Your task to perform on an android device: turn off wifi Image 0: 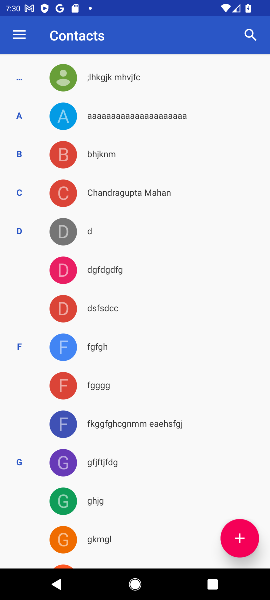
Step 0: press home button
Your task to perform on an android device: turn off wifi Image 1: 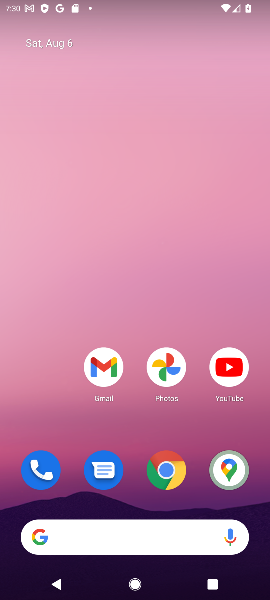
Step 1: drag from (176, 490) to (190, 95)
Your task to perform on an android device: turn off wifi Image 2: 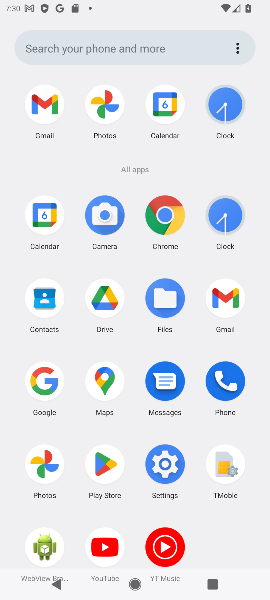
Step 2: click (166, 454)
Your task to perform on an android device: turn off wifi Image 3: 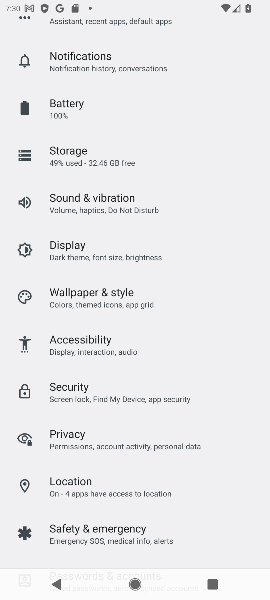
Step 3: drag from (128, 195) to (114, 547)
Your task to perform on an android device: turn off wifi Image 4: 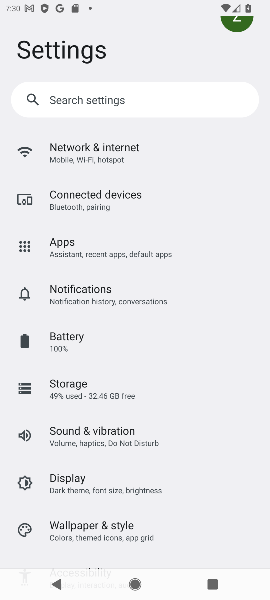
Step 4: click (105, 154)
Your task to perform on an android device: turn off wifi Image 5: 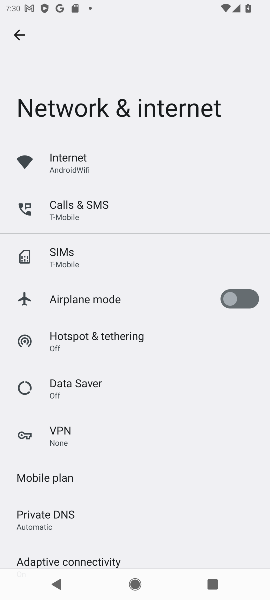
Step 5: click (73, 167)
Your task to perform on an android device: turn off wifi Image 6: 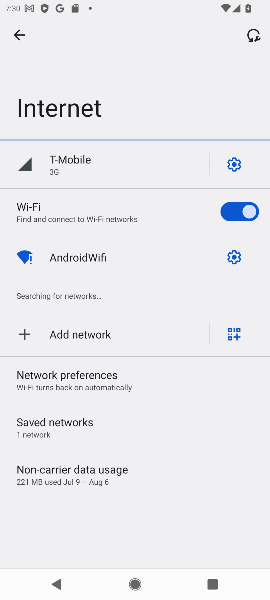
Step 6: click (225, 211)
Your task to perform on an android device: turn off wifi Image 7: 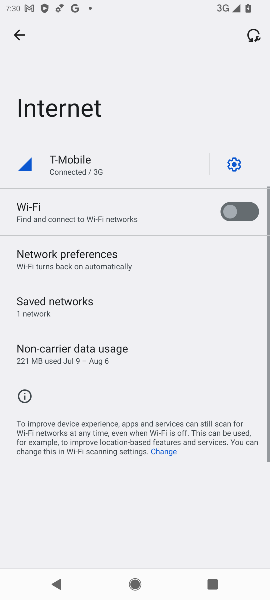
Step 7: task complete